Your task to perform on an android device: Open Google Maps Image 0: 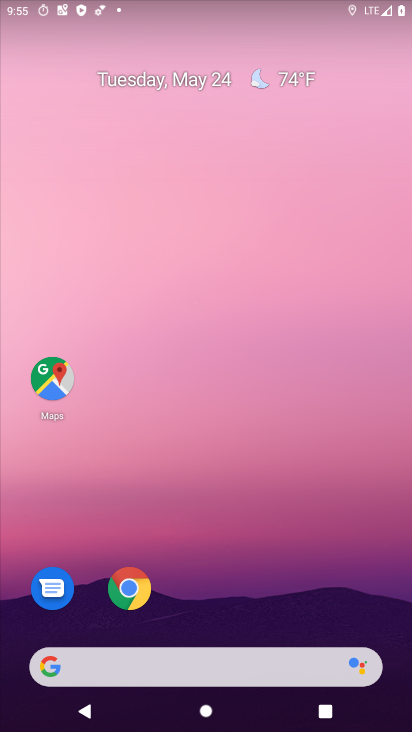
Step 0: drag from (170, 267) to (158, 30)
Your task to perform on an android device: Open Google Maps Image 1: 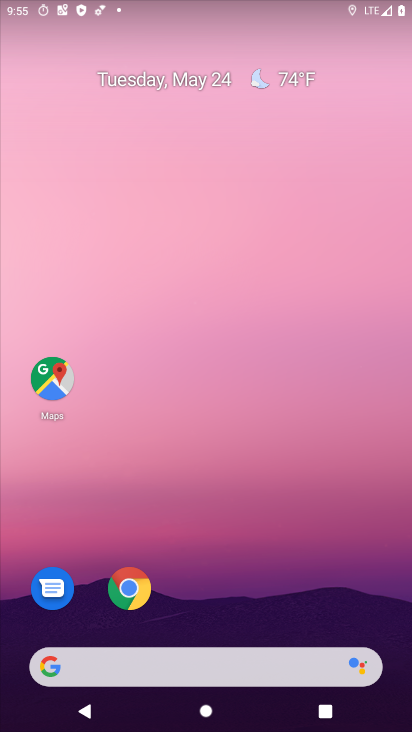
Step 1: drag from (216, 582) to (146, 0)
Your task to perform on an android device: Open Google Maps Image 2: 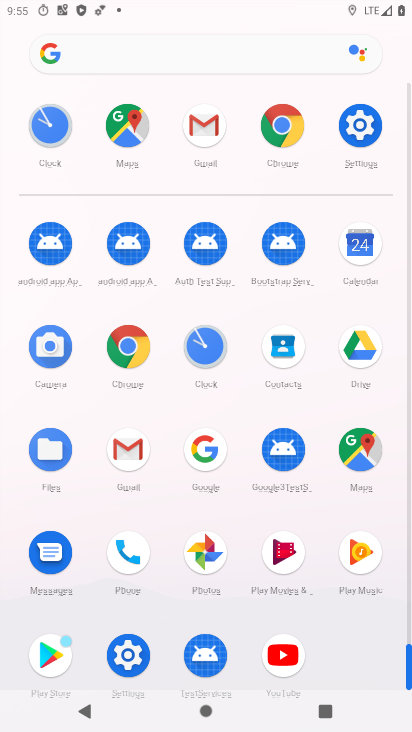
Step 2: click (357, 447)
Your task to perform on an android device: Open Google Maps Image 3: 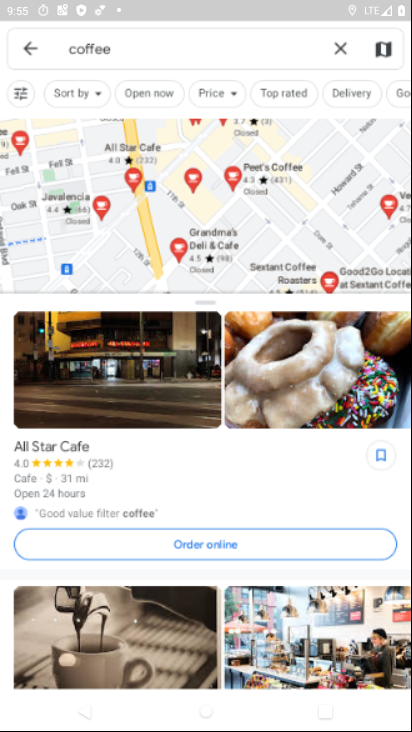
Step 3: click (37, 47)
Your task to perform on an android device: Open Google Maps Image 4: 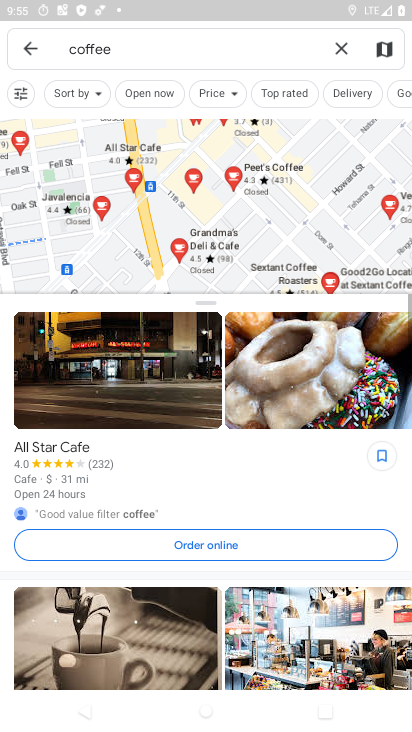
Step 4: click (28, 44)
Your task to perform on an android device: Open Google Maps Image 5: 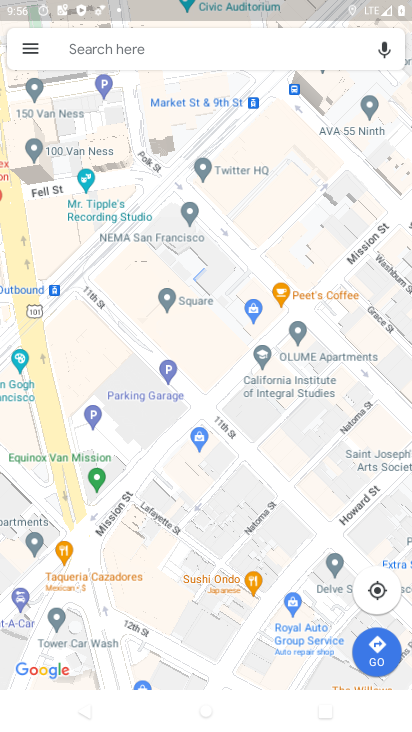
Step 5: task complete